Your task to perform on an android device: Open Google Image 0: 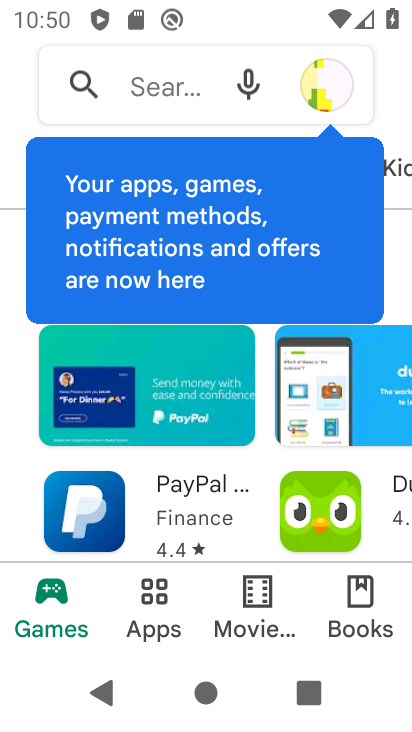
Step 0: press home button
Your task to perform on an android device: Open Google Image 1: 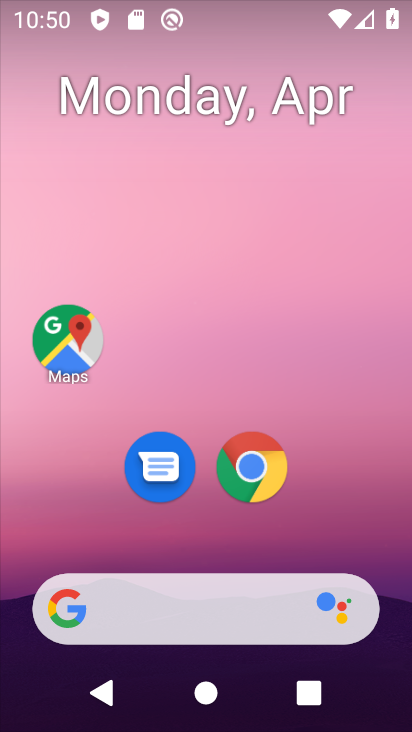
Step 1: drag from (349, 495) to (319, 134)
Your task to perform on an android device: Open Google Image 2: 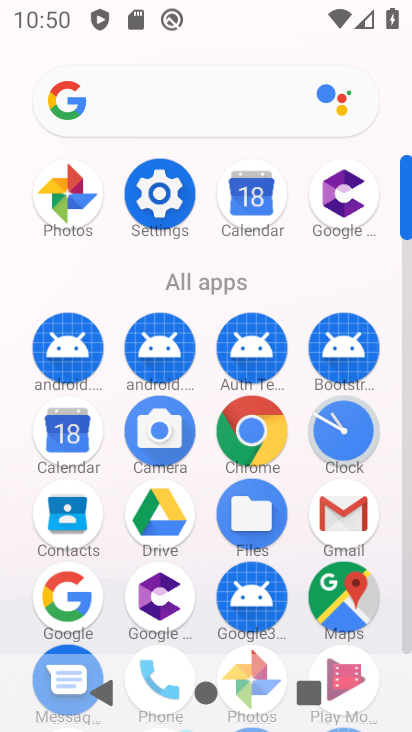
Step 2: click (27, 599)
Your task to perform on an android device: Open Google Image 3: 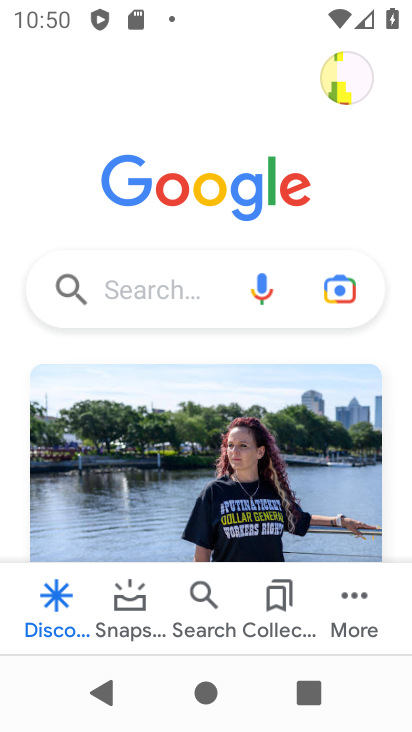
Step 3: task complete